Your task to perform on an android device: allow notifications from all sites in the chrome app Image 0: 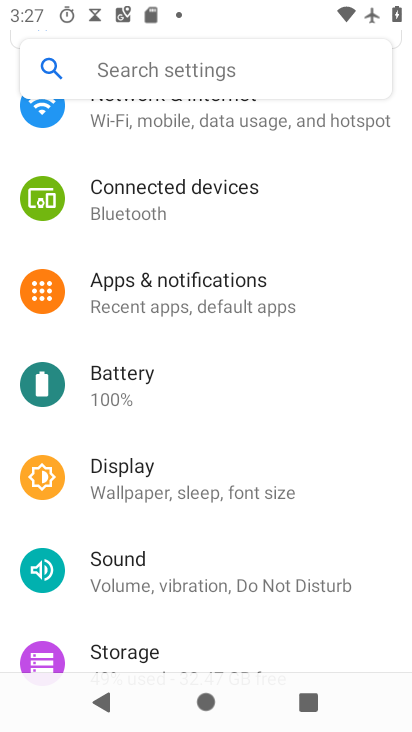
Step 0: press home button
Your task to perform on an android device: allow notifications from all sites in the chrome app Image 1: 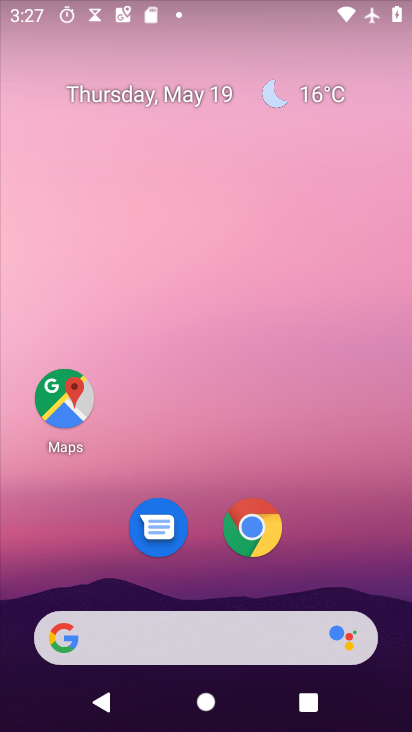
Step 1: click (252, 547)
Your task to perform on an android device: allow notifications from all sites in the chrome app Image 2: 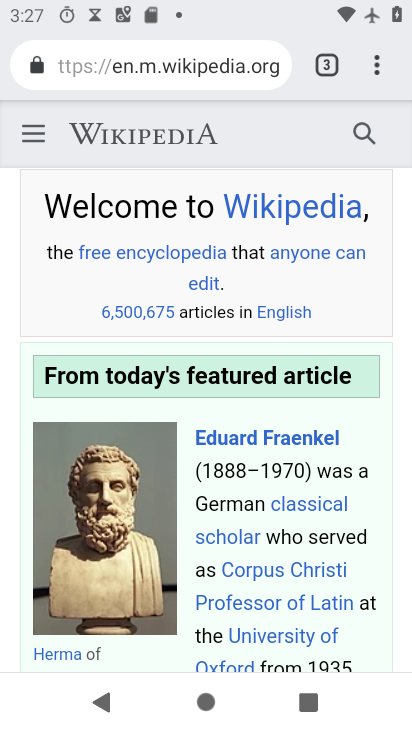
Step 2: click (376, 60)
Your task to perform on an android device: allow notifications from all sites in the chrome app Image 3: 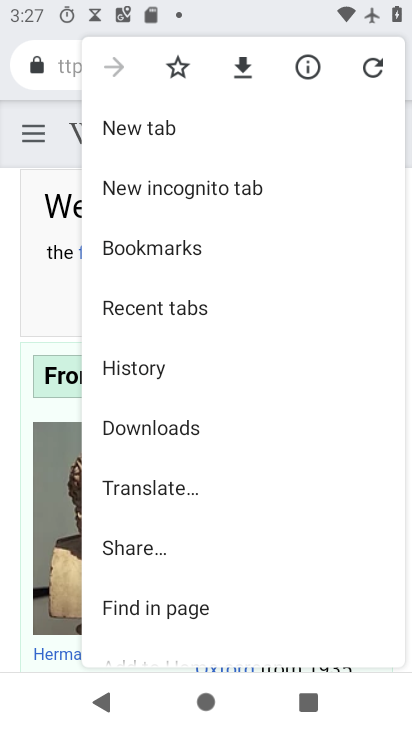
Step 3: drag from (202, 541) to (208, 56)
Your task to perform on an android device: allow notifications from all sites in the chrome app Image 4: 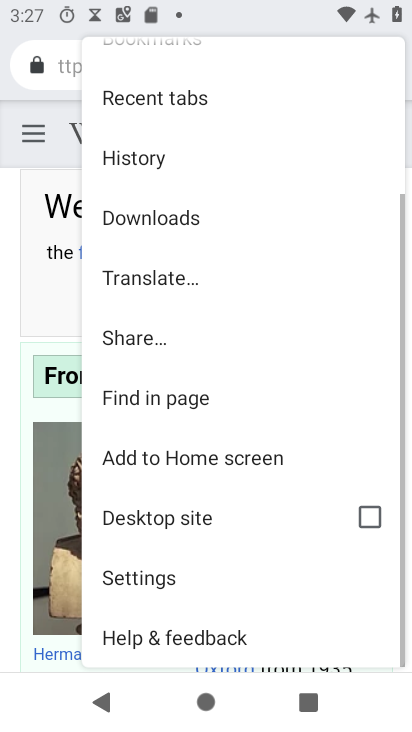
Step 4: click (177, 569)
Your task to perform on an android device: allow notifications from all sites in the chrome app Image 5: 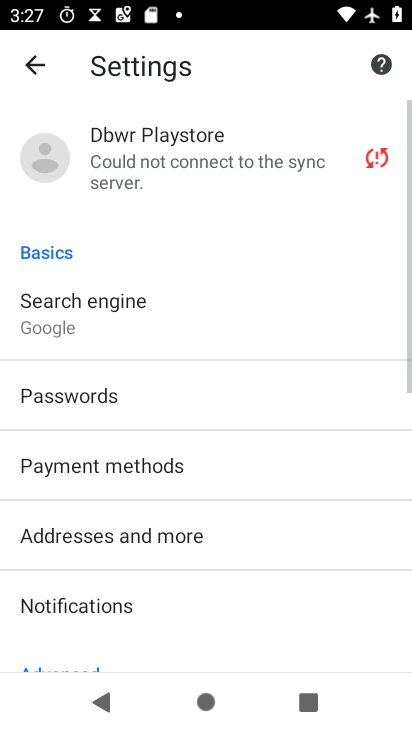
Step 5: drag from (203, 529) to (154, 68)
Your task to perform on an android device: allow notifications from all sites in the chrome app Image 6: 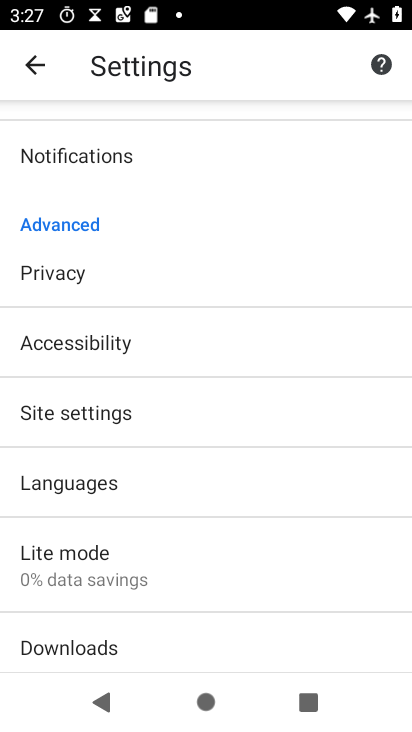
Step 6: click (157, 407)
Your task to perform on an android device: allow notifications from all sites in the chrome app Image 7: 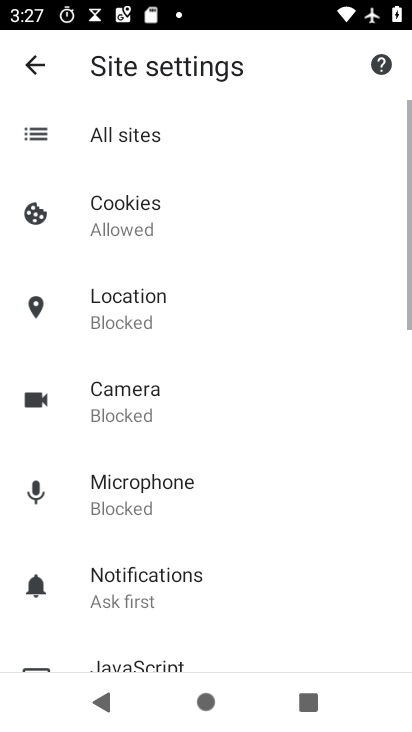
Step 7: click (195, 142)
Your task to perform on an android device: allow notifications from all sites in the chrome app Image 8: 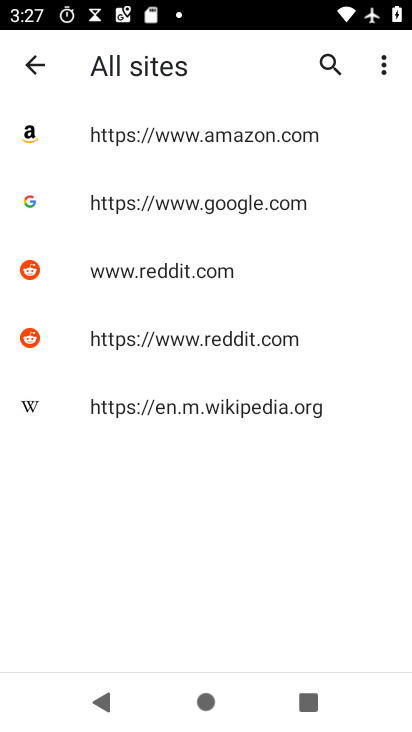
Step 8: click (225, 125)
Your task to perform on an android device: allow notifications from all sites in the chrome app Image 9: 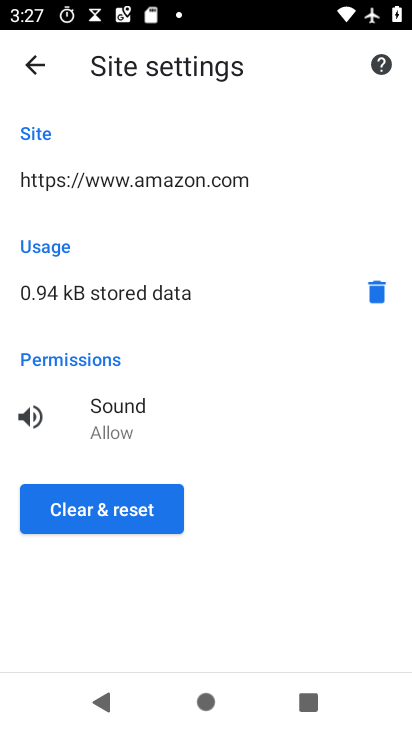
Step 9: task complete